Your task to perform on an android device: turn off picture-in-picture Image 0: 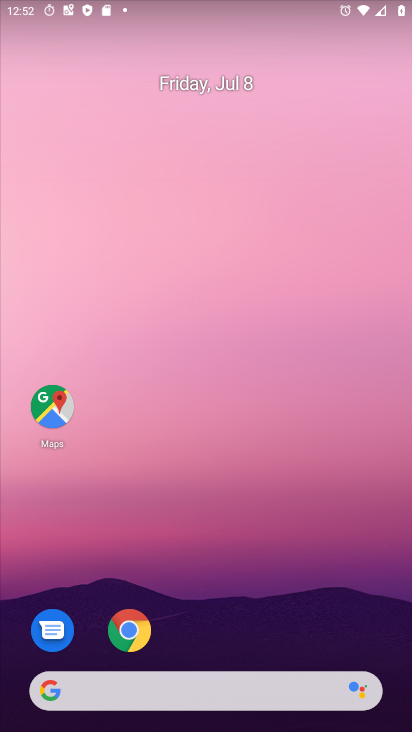
Step 0: click (234, 223)
Your task to perform on an android device: turn off picture-in-picture Image 1: 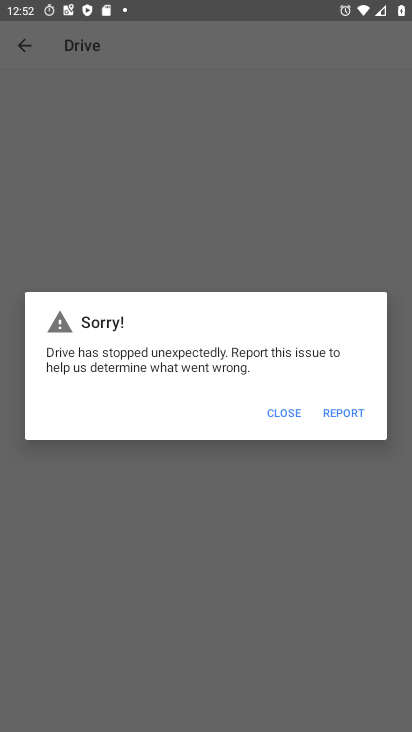
Step 1: press home button
Your task to perform on an android device: turn off picture-in-picture Image 2: 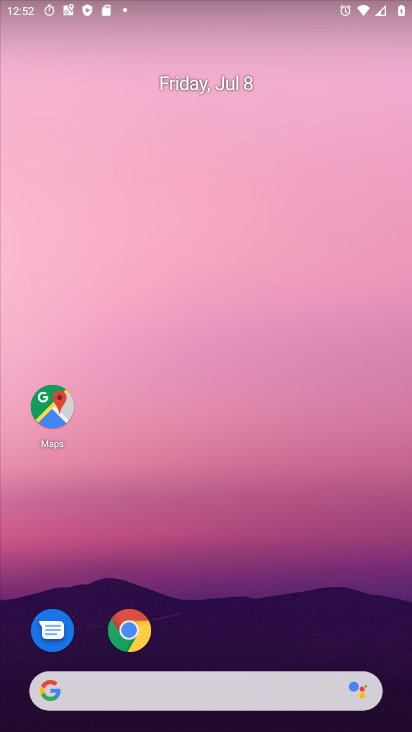
Step 2: click (118, 641)
Your task to perform on an android device: turn off picture-in-picture Image 3: 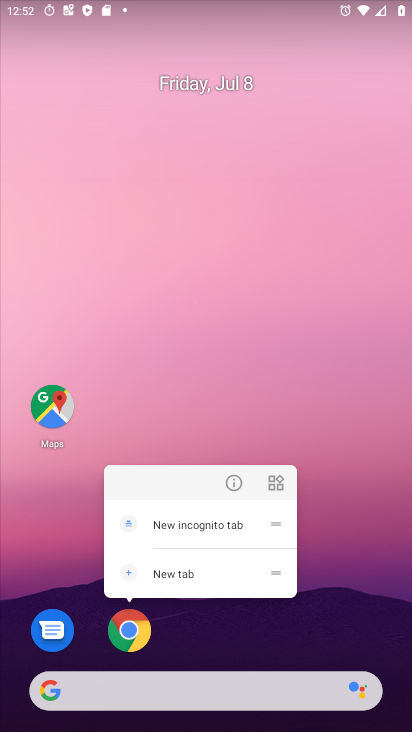
Step 3: click (228, 489)
Your task to perform on an android device: turn off picture-in-picture Image 4: 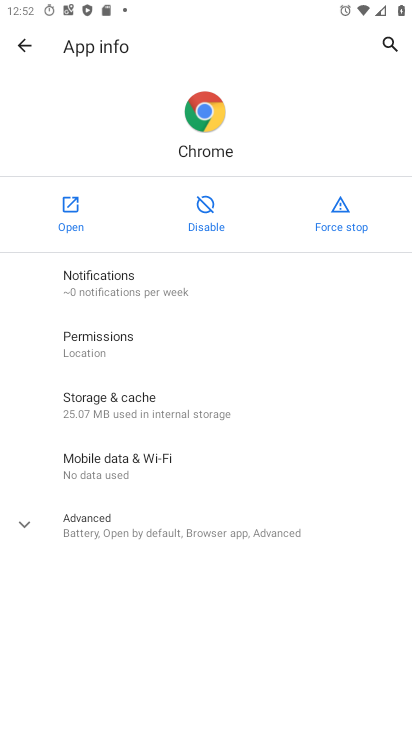
Step 4: click (93, 512)
Your task to perform on an android device: turn off picture-in-picture Image 5: 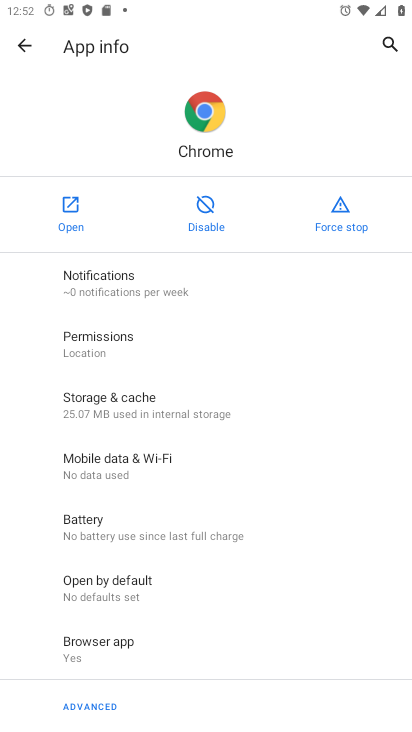
Step 5: drag from (166, 627) to (201, 348)
Your task to perform on an android device: turn off picture-in-picture Image 6: 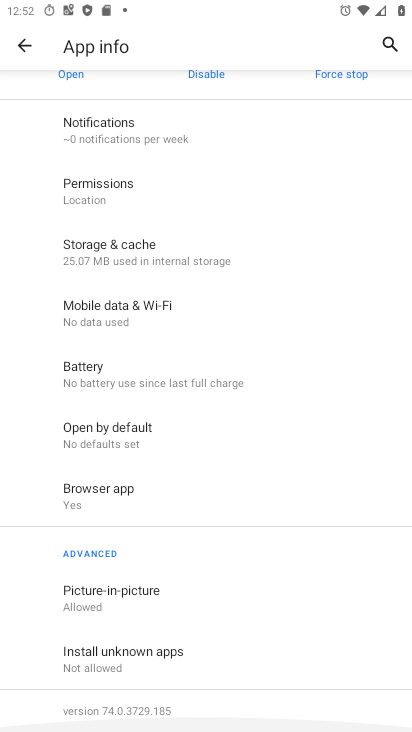
Step 6: click (172, 596)
Your task to perform on an android device: turn off picture-in-picture Image 7: 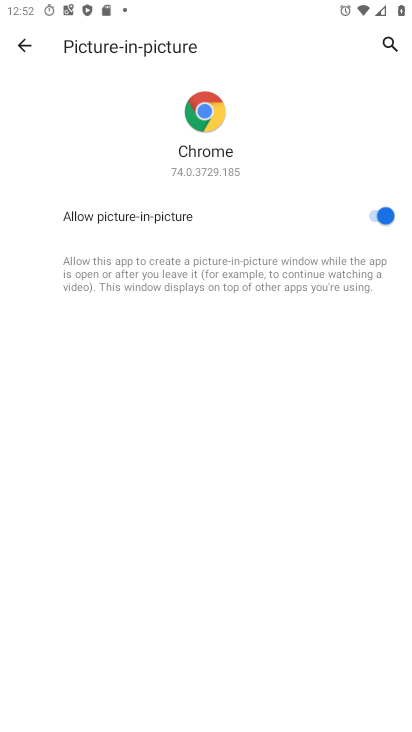
Step 7: click (378, 211)
Your task to perform on an android device: turn off picture-in-picture Image 8: 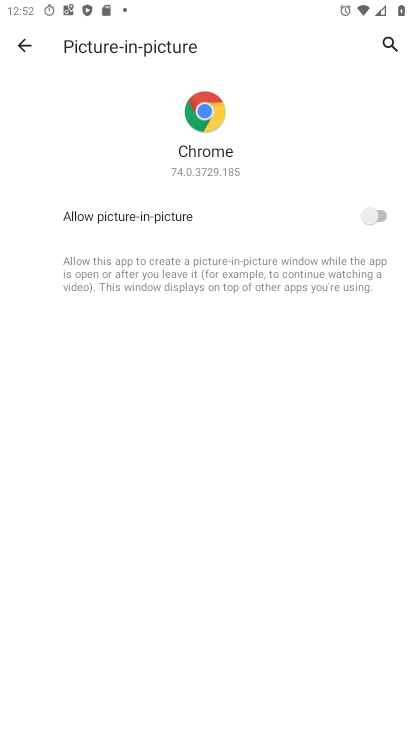
Step 8: task complete